Your task to perform on an android device: Show me the alarms in the clock app Image 0: 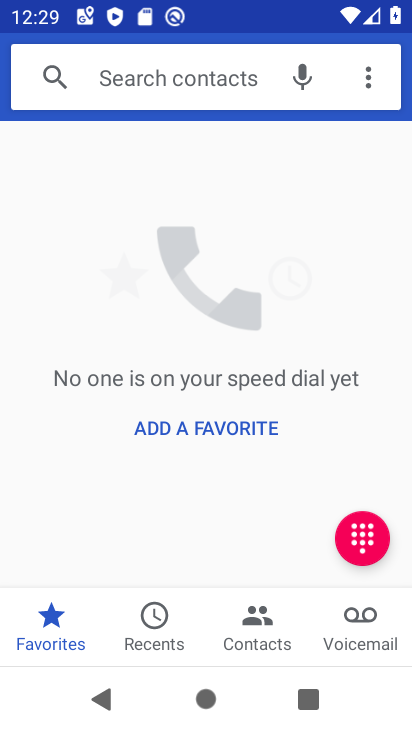
Step 0: press home button
Your task to perform on an android device: Show me the alarms in the clock app Image 1: 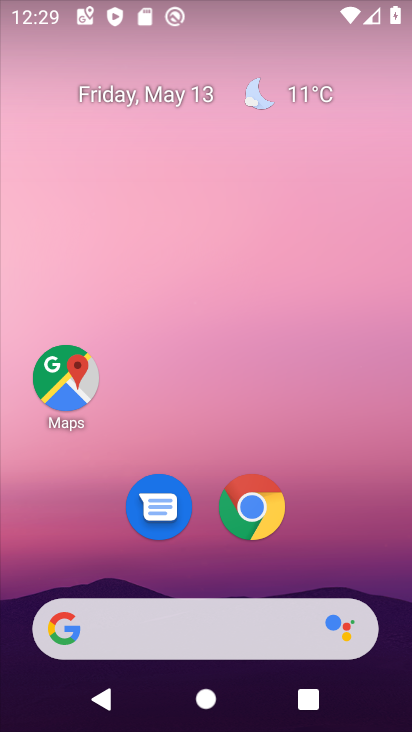
Step 1: drag from (213, 561) to (183, 0)
Your task to perform on an android device: Show me the alarms in the clock app Image 2: 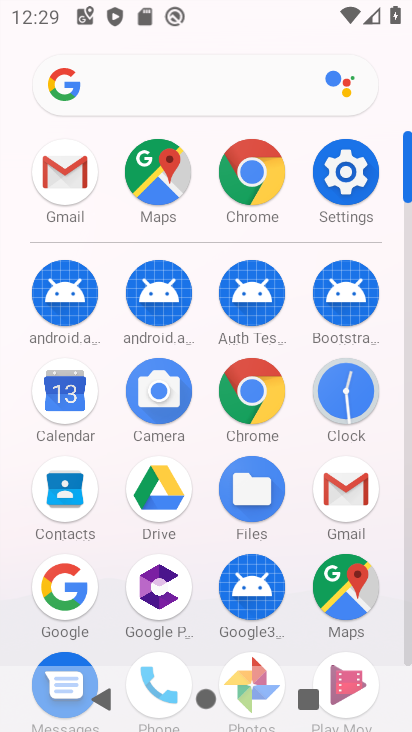
Step 2: click (332, 390)
Your task to perform on an android device: Show me the alarms in the clock app Image 3: 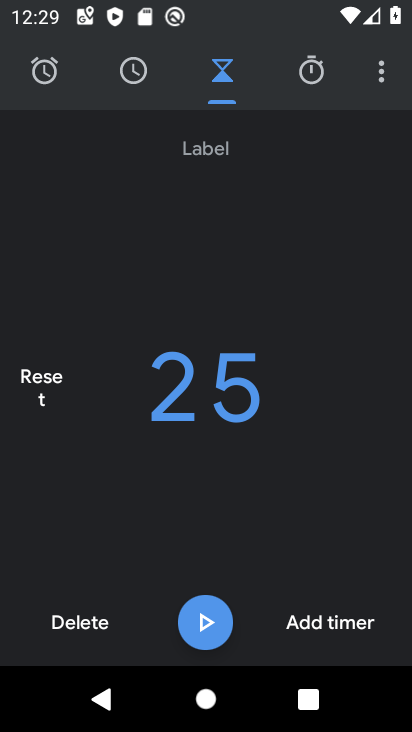
Step 3: click (26, 75)
Your task to perform on an android device: Show me the alarms in the clock app Image 4: 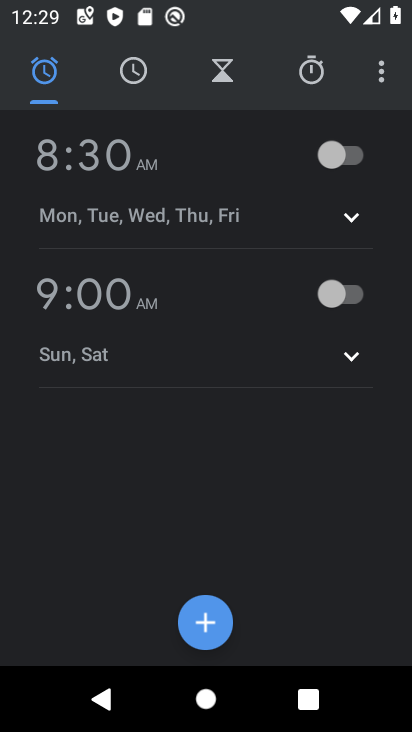
Step 4: task complete